Your task to perform on an android device: Open the stopwatch Image 0: 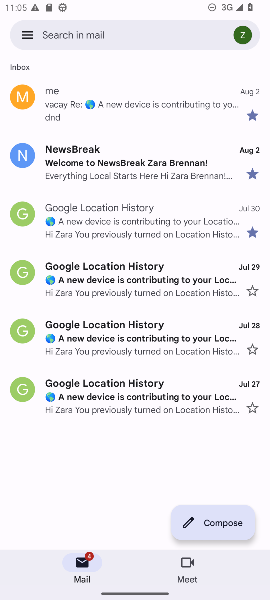
Step 0: press home button
Your task to perform on an android device: Open the stopwatch Image 1: 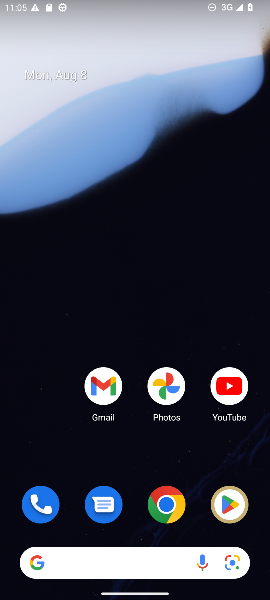
Step 1: drag from (139, 476) to (189, 8)
Your task to perform on an android device: Open the stopwatch Image 2: 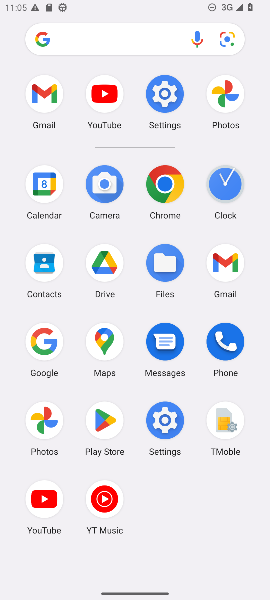
Step 2: click (224, 192)
Your task to perform on an android device: Open the stopwatch Image 3: 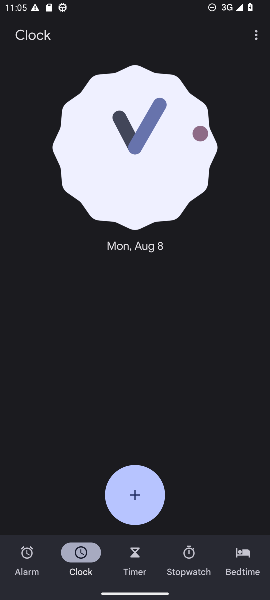
Step 3: click (193, 551)
Your task to perform on an android device: Open the stopwatch Image 4: 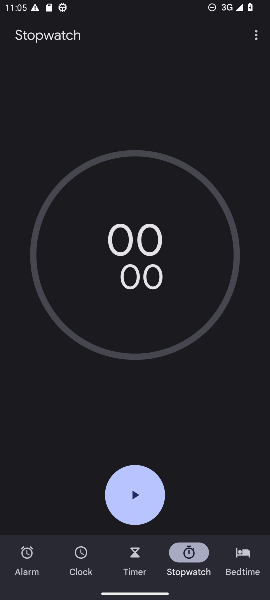
Step 4: click (133, 494)
Your task to perform on an android device: Open the stopwatch Image 5: 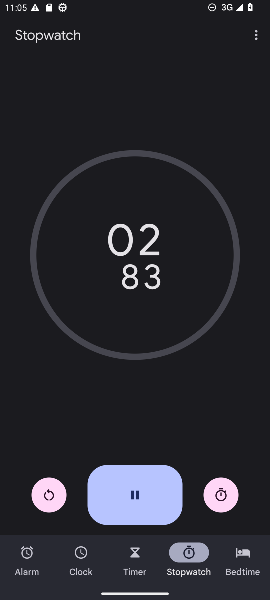
Step 5: task complete